Your task to perform on an android device: Open Google Chrome and open the bookmarks view Image 0: 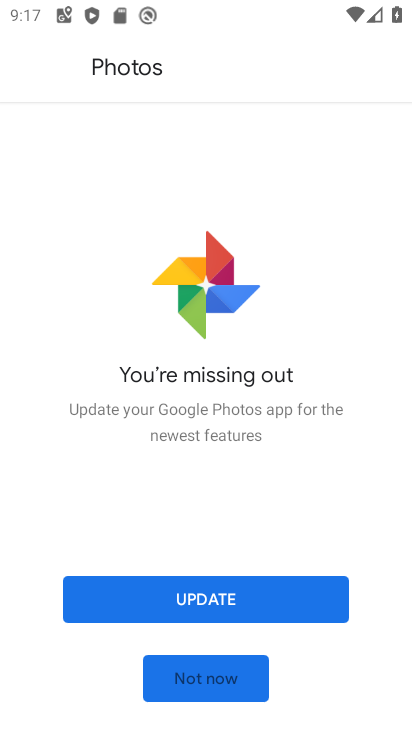
Step 0: press home button
Your task to perform on an android device: Open Google Chrome and open the bookmarks view Image 1: 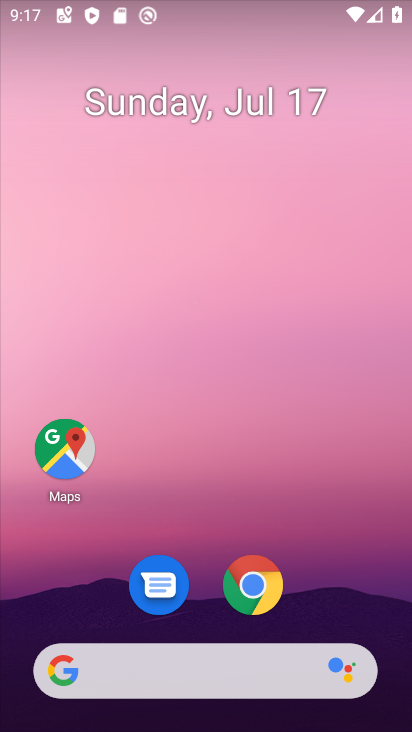
Step 1: click (273, 581)
Your task to perform on an android device: Open Google Chrome and open the bookmarks view Image 2: 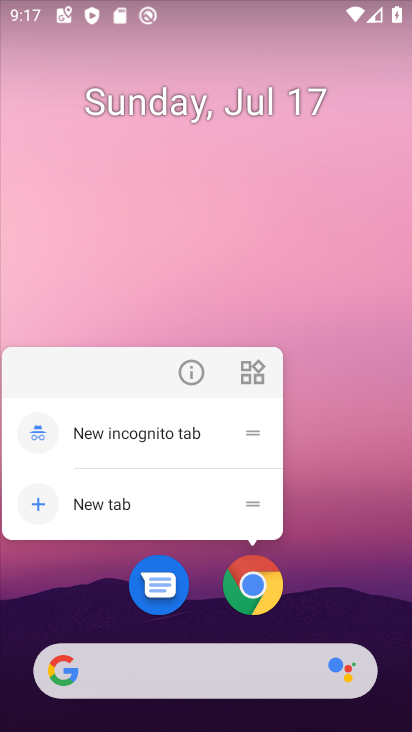
Step 2: click (273, 581)
Your task to perform on an android device: Open Google Chrome and open the bookmarks view Image 3: 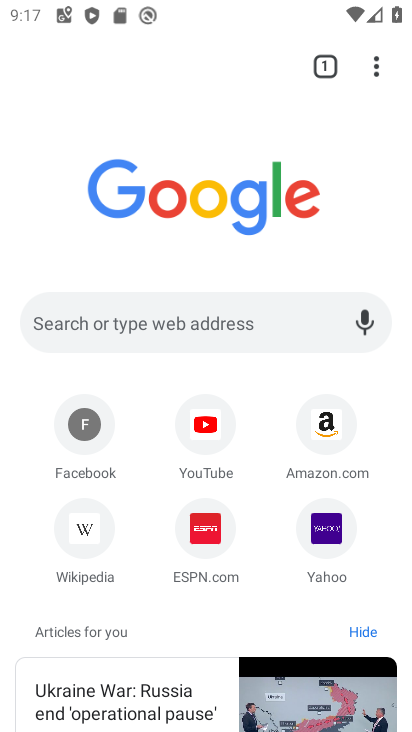
Step 3: click (376, 67)
Your task to perform on an android device: Open Google Chrome and open the bookmarks view Image 4: 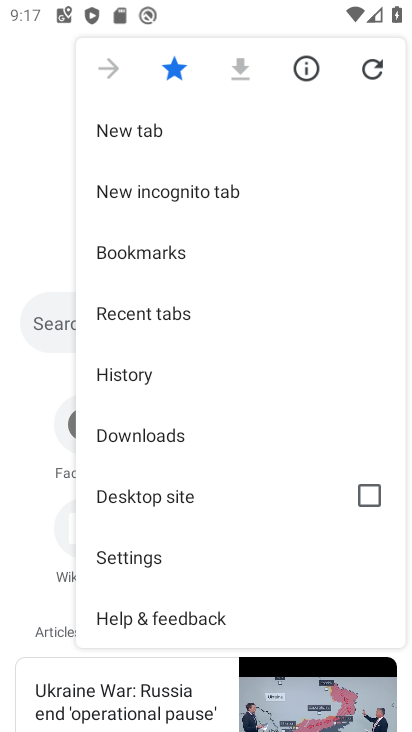
Step 4: click (178, 256)
Your task to perform on an android device: Open Google Chrome and open the bookmarks view Image 5: 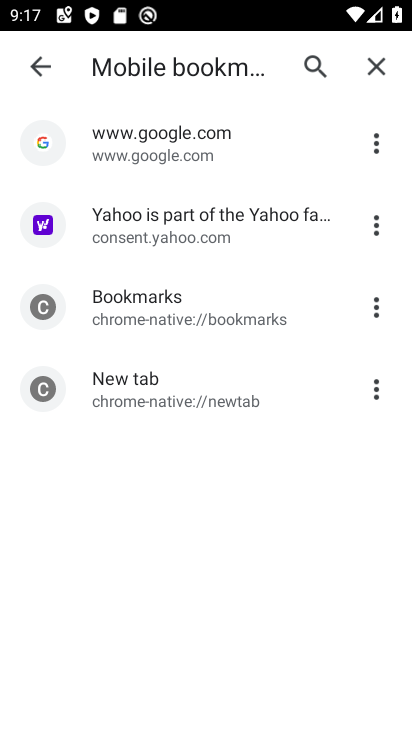
Step 5: task complete